Your task to perform on an android device: Open the map Image 0: 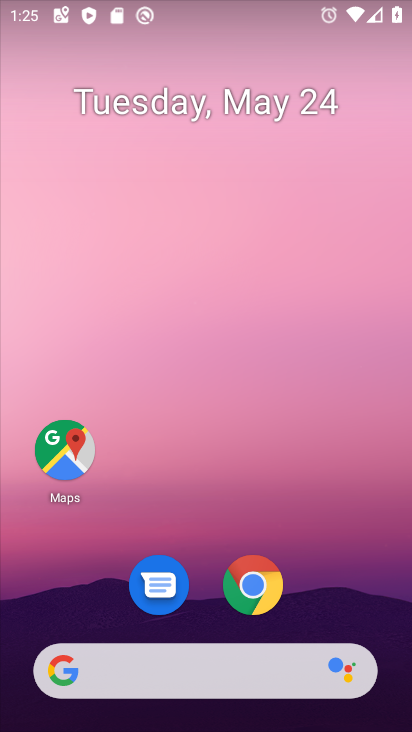
Step 0: click (66, 447)
Your task to perform on an android device: Open the map Image 1: 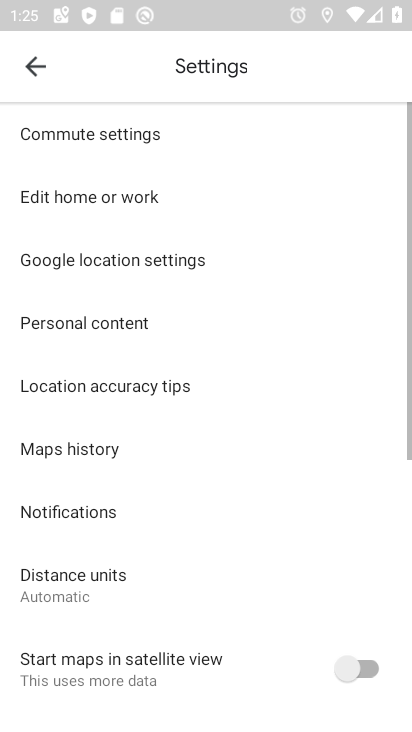
Step 1: click (35, 67)
Your task to perform on an android device: Open the map Image 2: 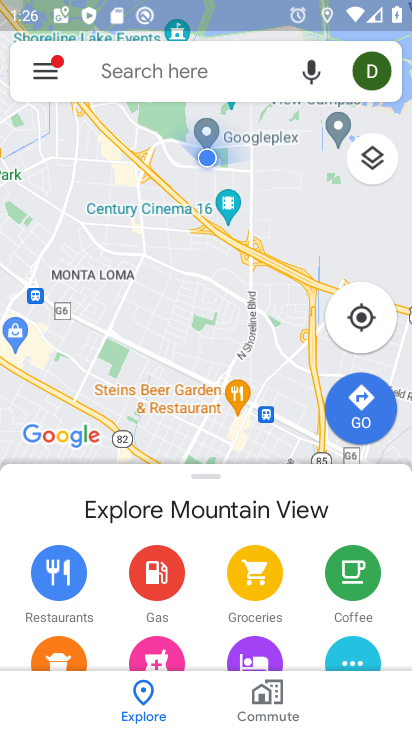
Step 2: task complete